Your task to perform on an android device: change the clock display to analog Image 0: 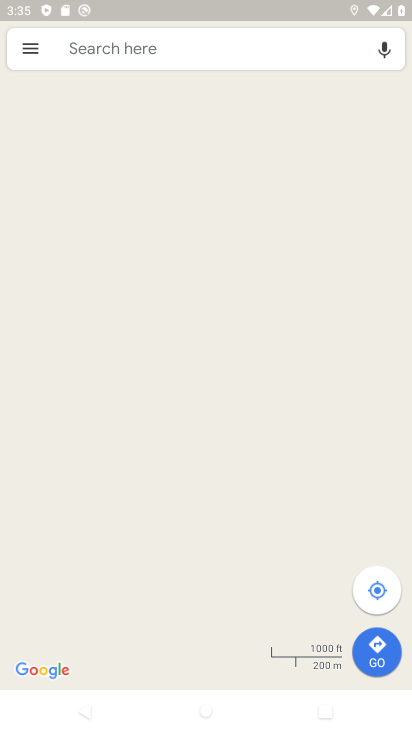
Step 0: press home button
Your task to perform on an android device: change the clock display to analog Image 1: 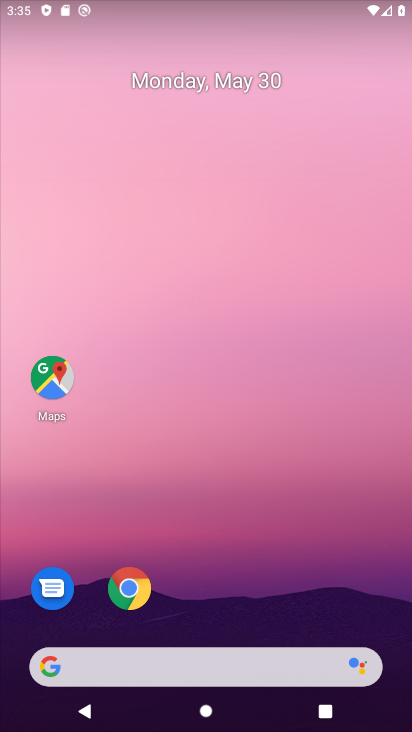
Step 1: drag from (380, 611) to (303, 83)
Your task to perform on an android device: change the clock display to analog Image 2: 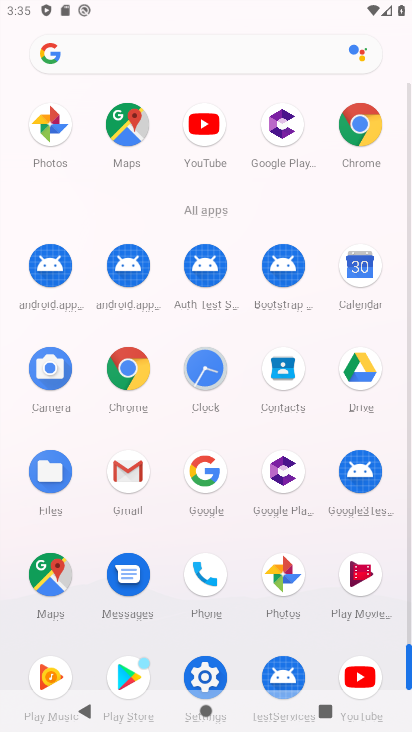
Step 2: click (202, 367)
Your task to perform on an android device: change the clock display to analog Image 3: 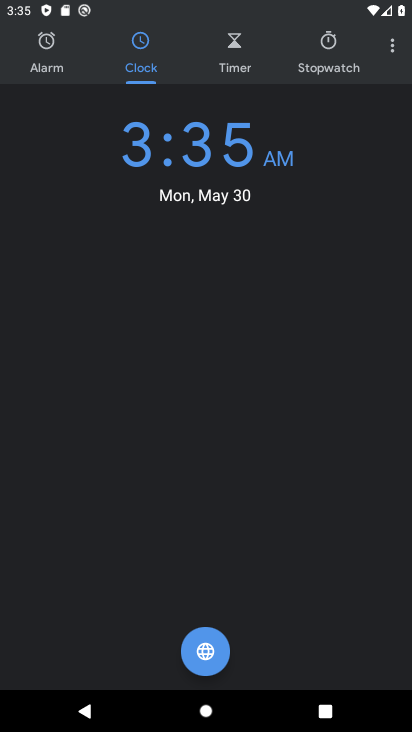
Step 3: click (386, 47)
Your task to perform on an android device: change the clock display to analog Image 4: 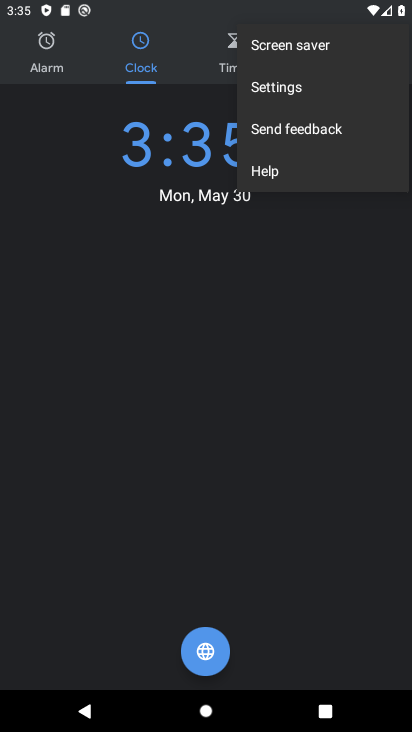
Step 4: click (274, 78)
Your task to perform on an android device: change the clock display to analog Image 5: 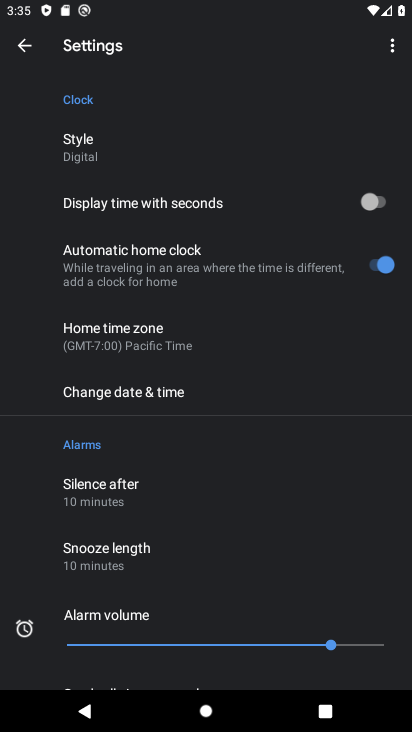
Step 5: click (112, 147)
Your task to perform on an android device: change the clock display to analog Image 6: 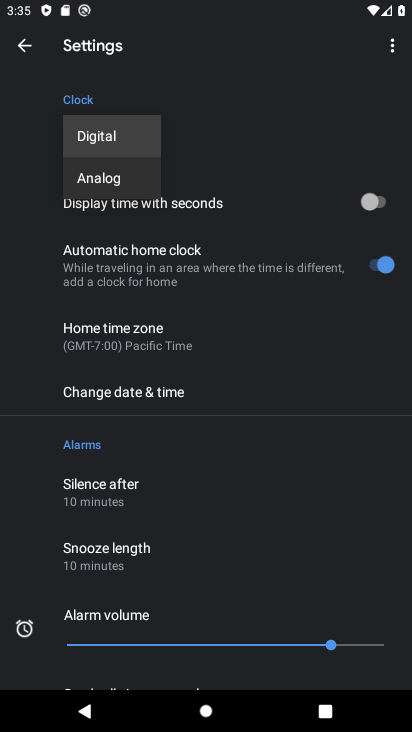
Step 6: click (112, 177)
Your task to perform on an android device: change the clock display to analog Image 7: 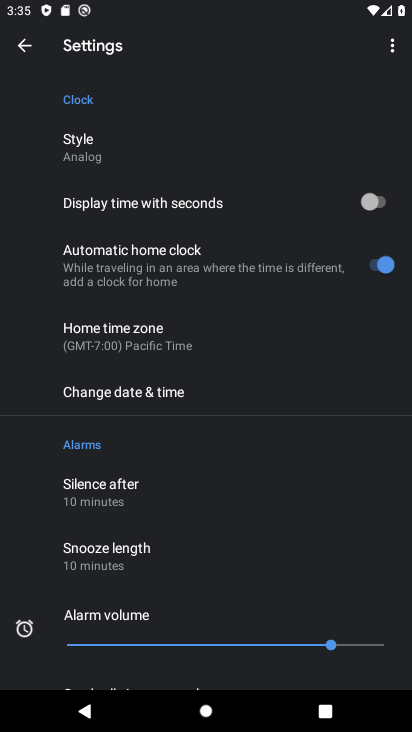
Step 7: task complete